Your task to perform on an android device: turn on data saver in the chrome app Image 0: 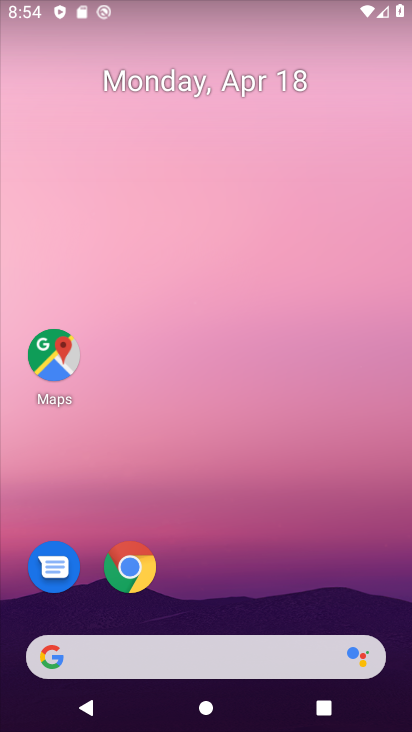
Step 0: click (134, 573)
Your task to perform on an android device: turn on data saver in the chrome app Image 1: 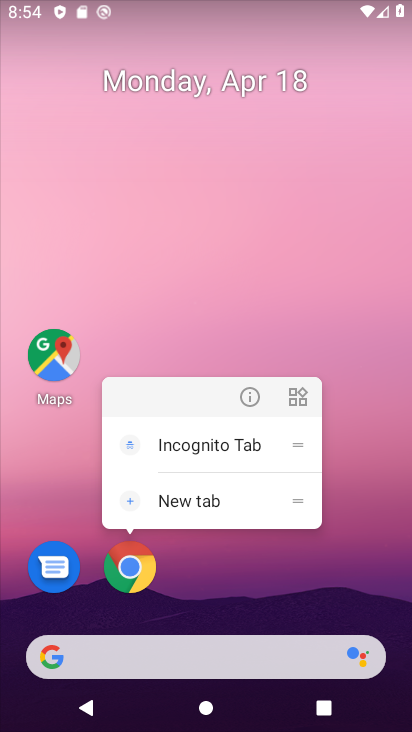
Step 1: click (129, 573)
Your task to perform on an android device: turn on data saver in the chrome app Image 2: 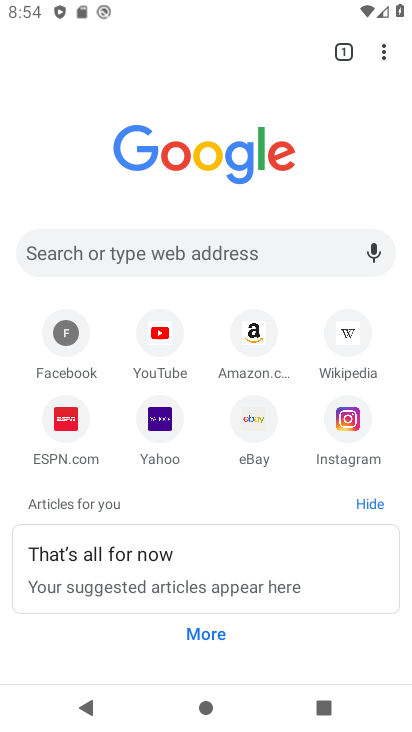
Step 2: click (382, 47)
Your task to perform on an android device: turn on data saver in the chrome app Image 3: 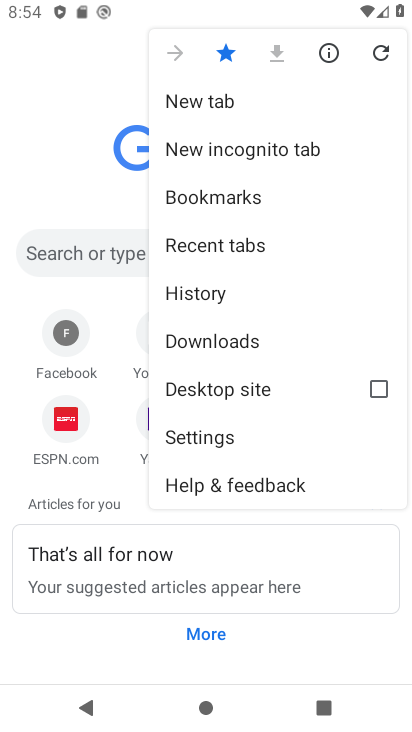
Step 3: click (233, 441)
Your task to perform on an android device: turn on data saver in the chrome app Image 4: 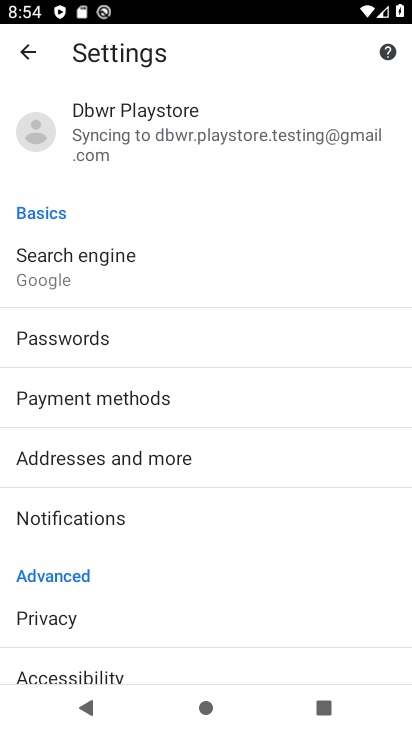
Step 4: drag from (134, 574) to (183, 244)
Your task to perform on an android device: turn on data saver in the chrome app Image 5: 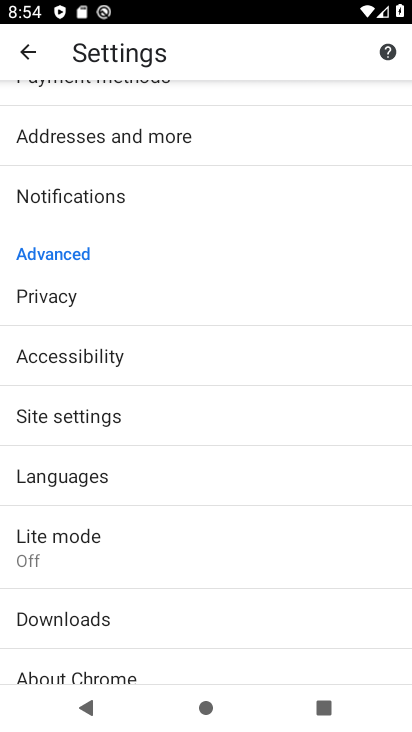
Step 5: drag from (123, 553) to (152, 367)
Your task to perform on an android device: turn on data saver in the chrome app Image 6: 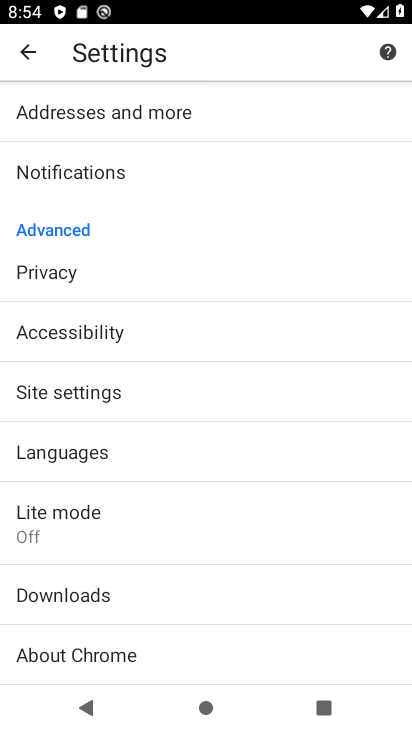
Step 6: click (65, 520)
Your task to perform on an android device: turn on data saver in the chrome app Image 7: 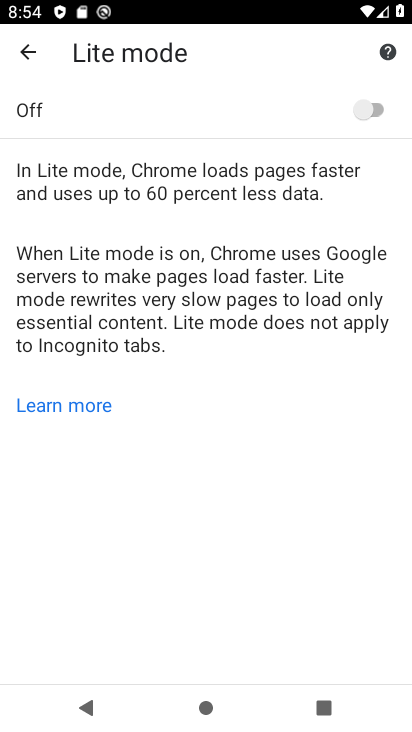
Step 7: click (364, 107)
Your task to perform on an android device: turn on data saver in the chrome app Image 8: 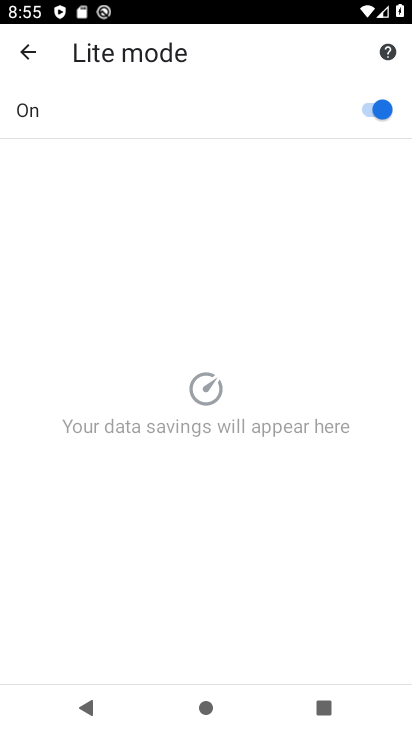
Step 8: task complete